Your task to perform on an android device: Search for cool wooden wall art on Etsy. Image 0: 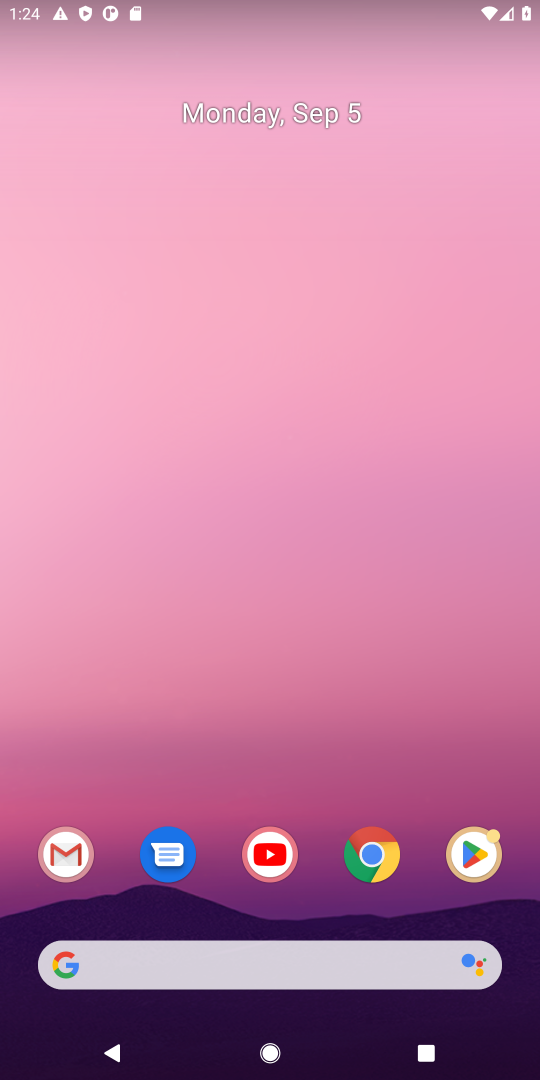
Step 0: click (391, 957)
Your task to perform on an android device: Search for cool wooden wall art on Etsy. Image 1: 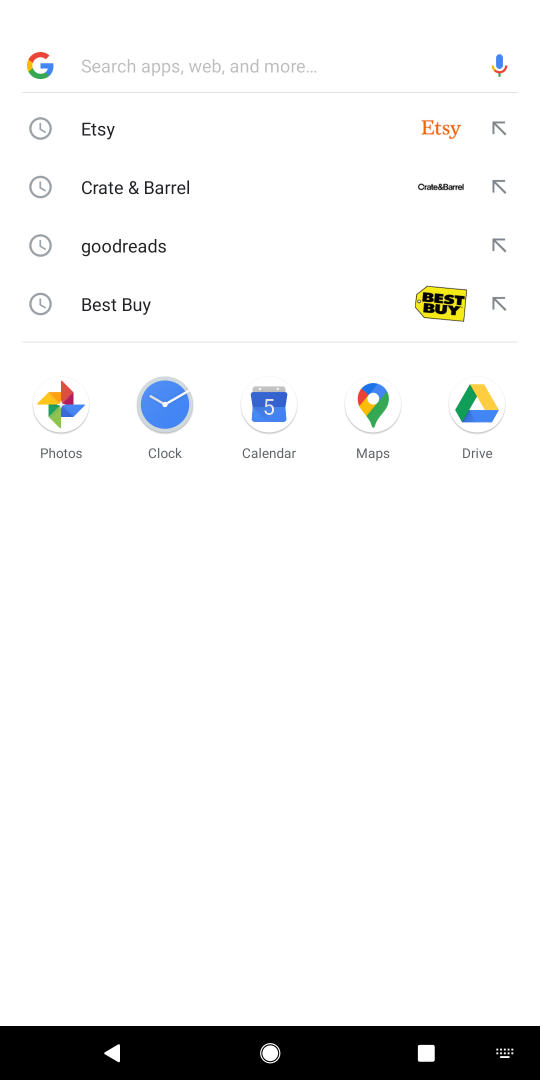
Step 1: press enter
Your task to perform on an android device: Search for cool wooden wall art on Etsy. Image 2: 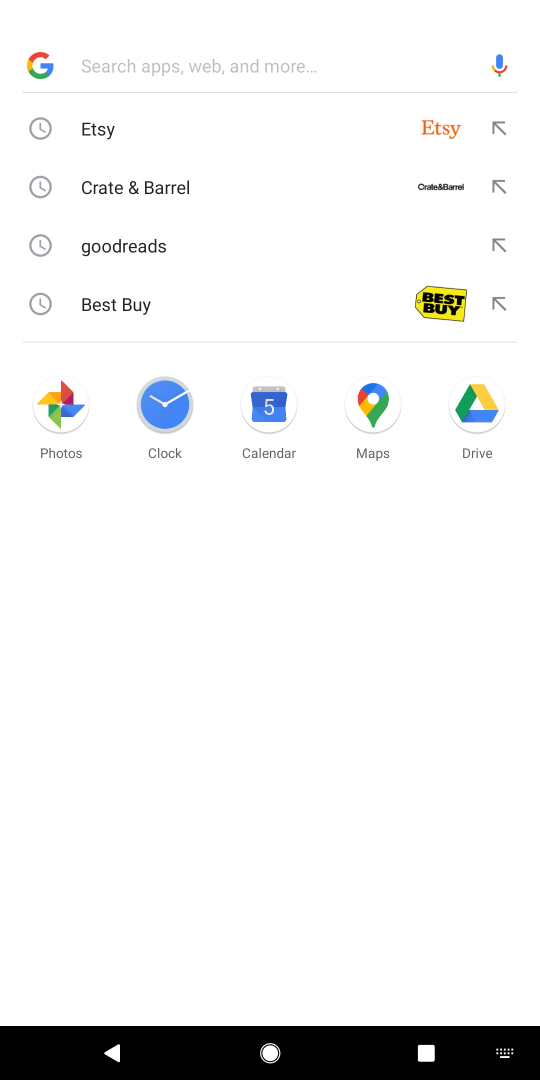
Step 2: type "etsy"
Your task to perform on an android device: Search for cool wooden wall art on Etsy. Image 3: 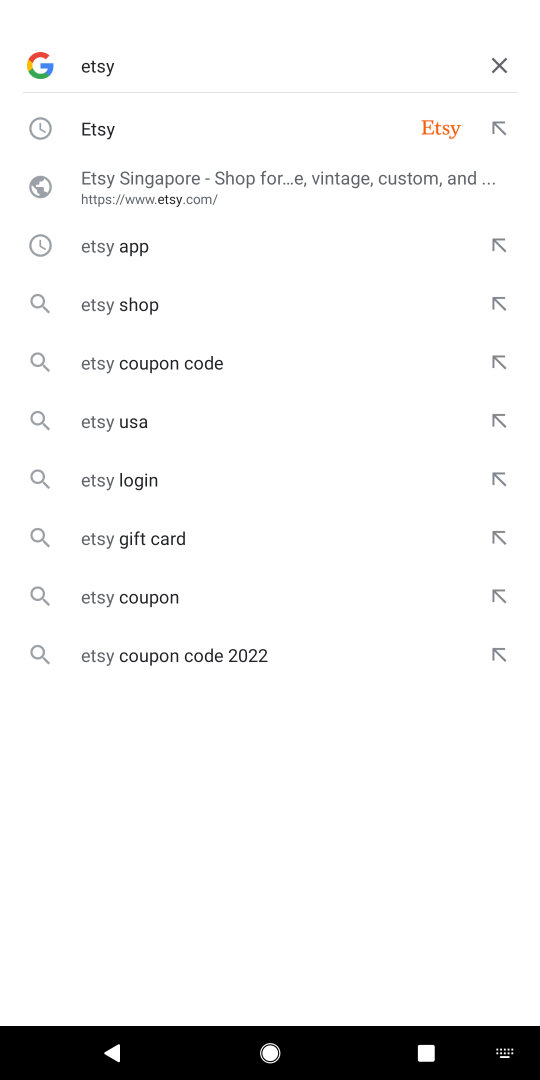
Step 3: click (179, 125)
Your task to perform on an android device: Search for cool wooden wall art on Etsy. Image 4: 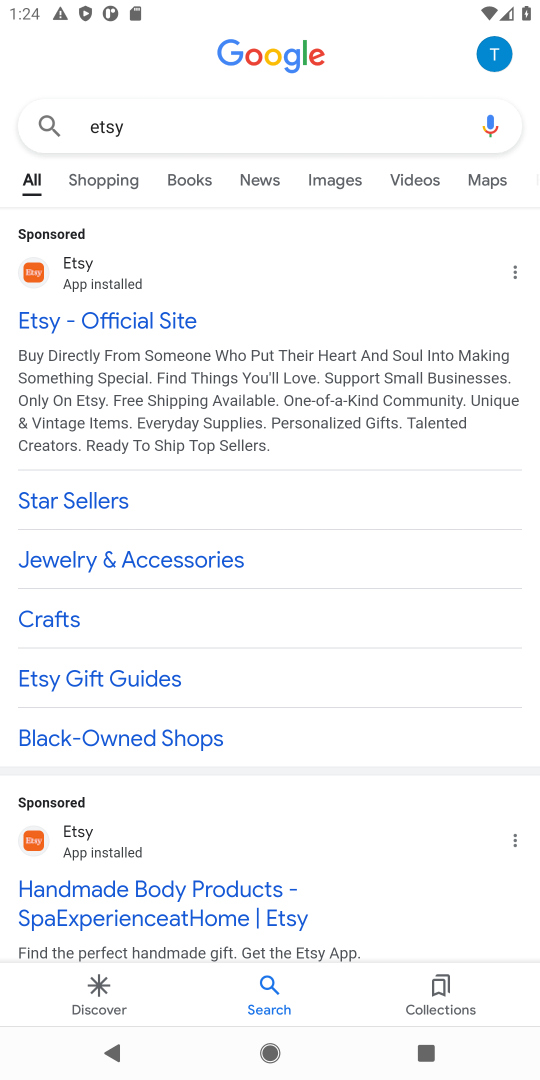
Step 4: click (146, 317)
Your task to perform on an android device: Search for cool wooden wall art on Etsy. Image 5: 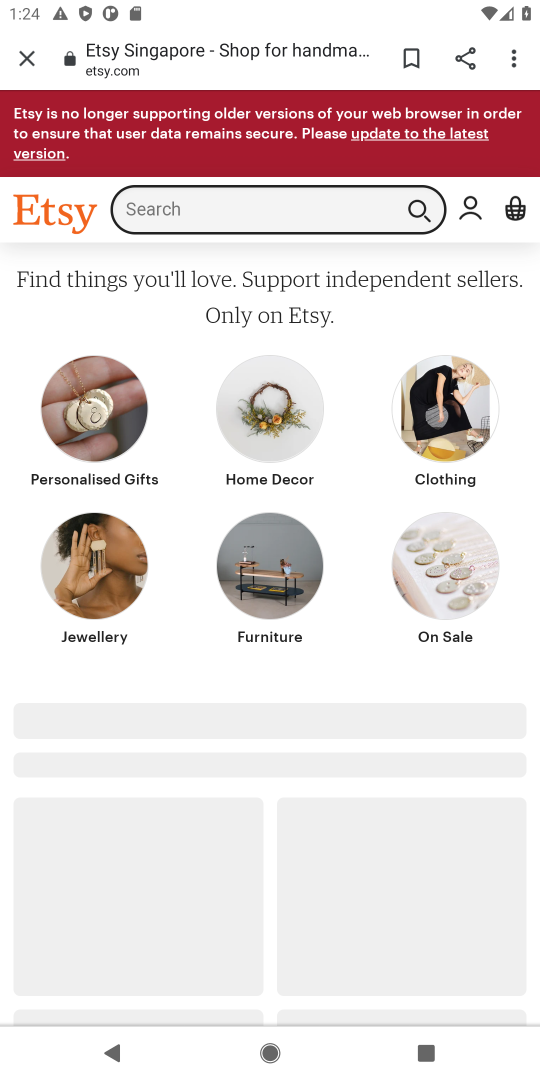
Step 5: click (215, 213)
Your task to perform on an android device: Search for cool wooden wall art on Etsy. Image 6: 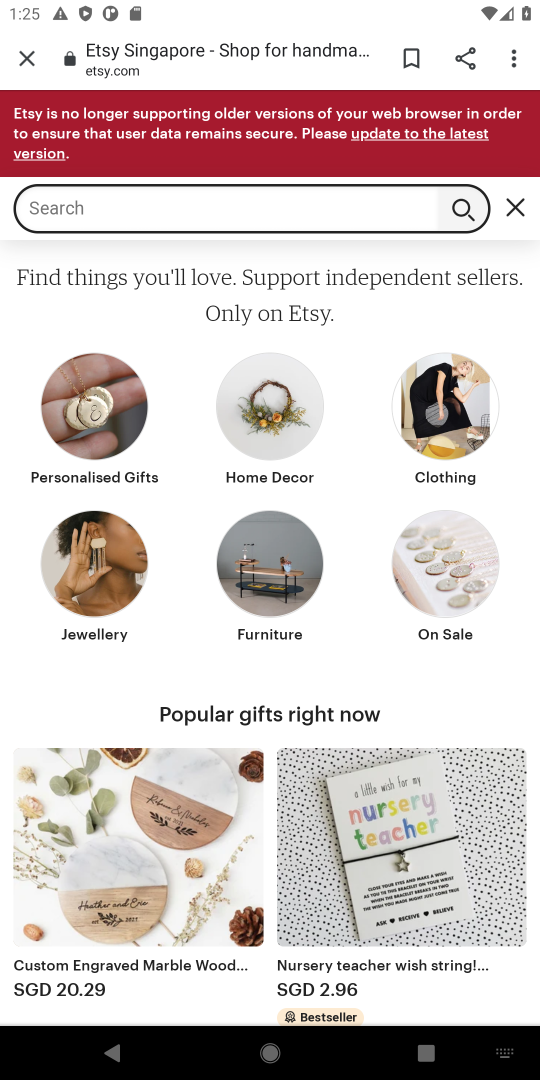
Step 6: type "cool wooden wall art"
Your task to perform on an android device: Search for cool wooden wall art on Etsy. Image 7: 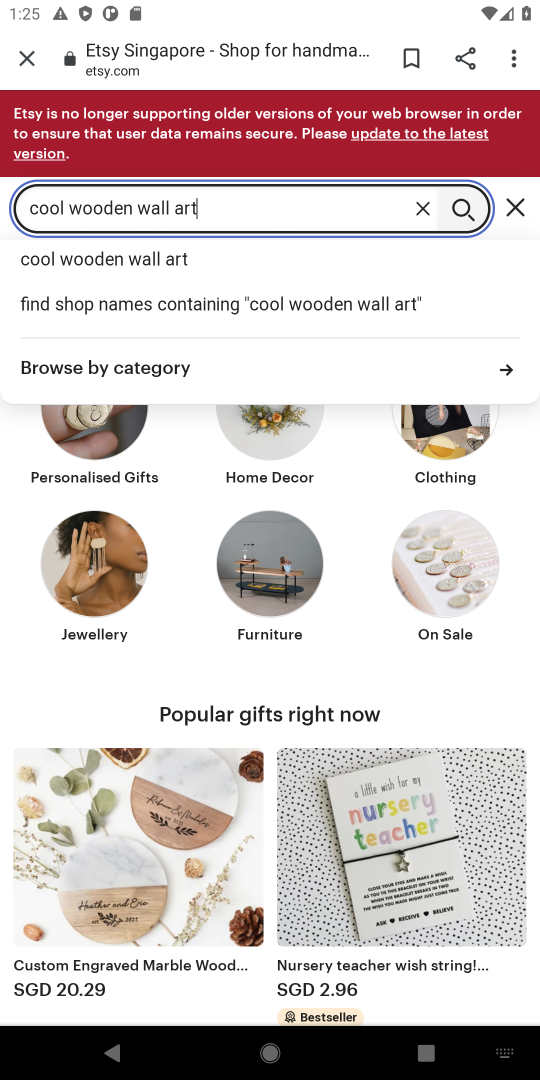
Step 7: click (155, 253)
Your task to perform on an android device: Search for cool wooden wall art on Etsy. Image 8: 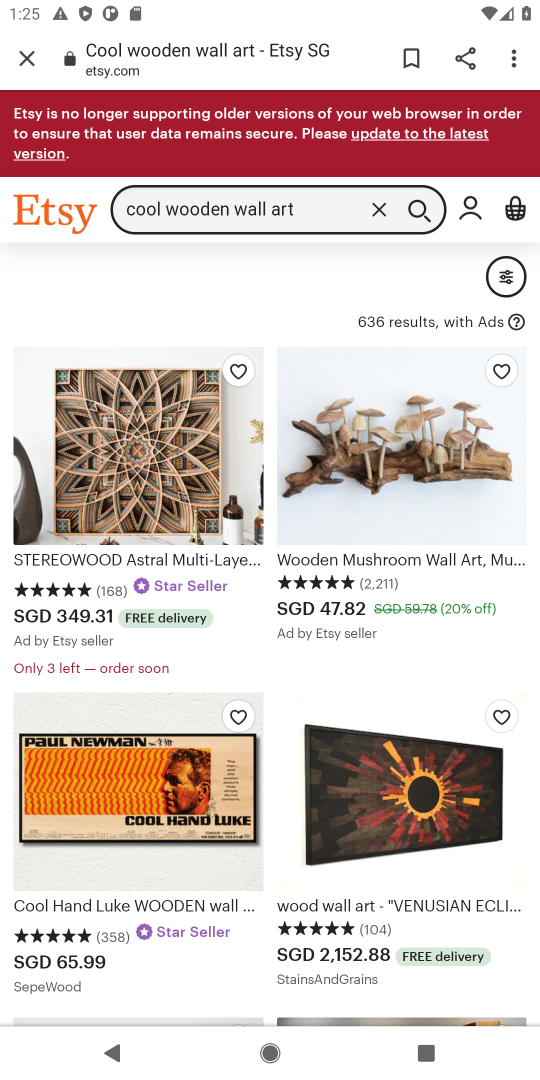
Step 8: task complete